Your task to perform on an android device: change keyboard looks Image 0: 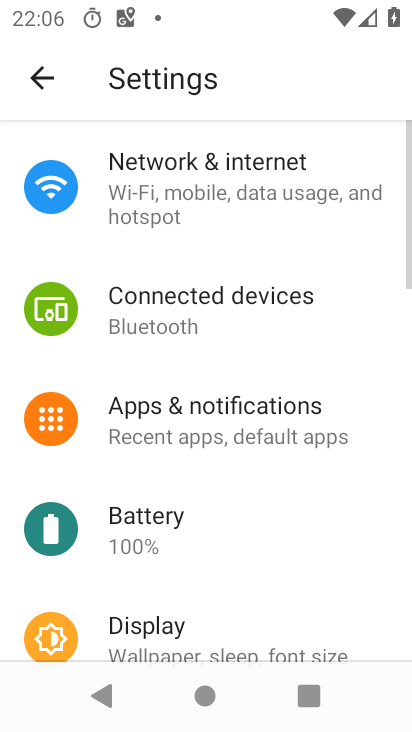
Step 0: drag from (367, 563) to (341, 310)
Your task to perform on an android device: change keyboard looks Image 1: 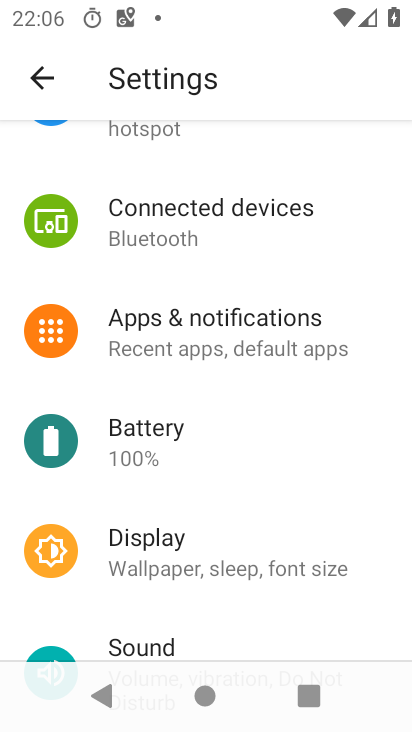
Step 1: drag from (345, 609) to (354, 262)
Your task to perform on an android device: change keyboard looks Image 2: 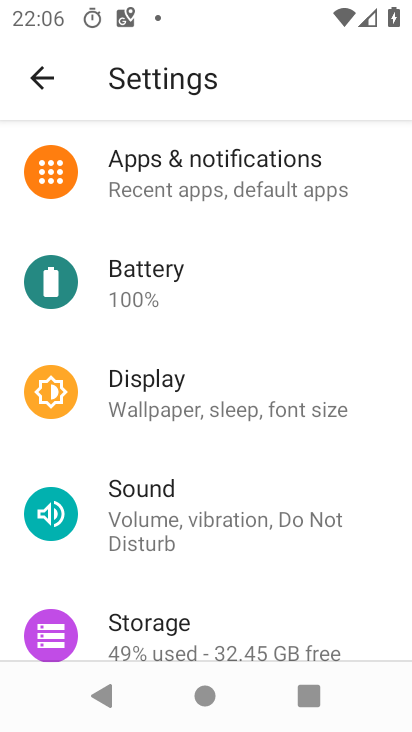
Step 2: drag from (286, 580) to (292, 261)
Your task to perform on an android device: change keyboard looks Image 3: 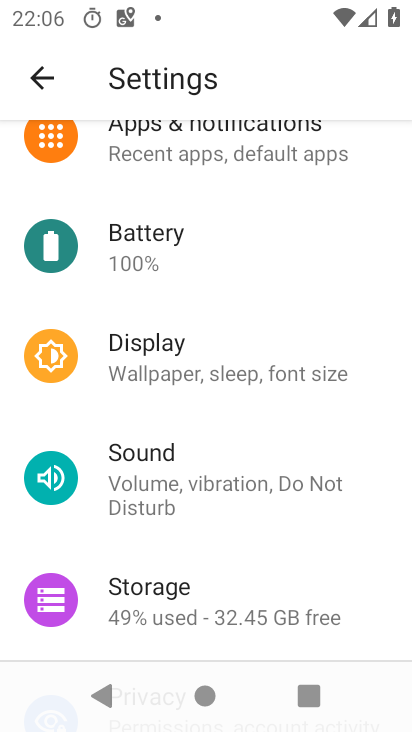
Step 3: drag from (295, 634) to (294, 266)
Your task to perform on an android device: change keyboard looks Image 4: 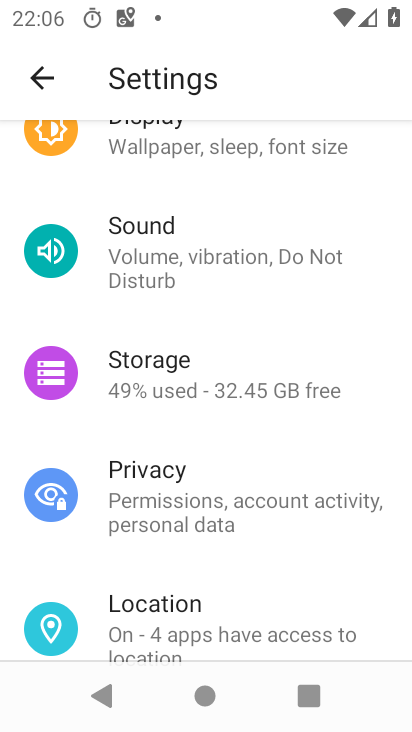
Step 4: drag from (329, 464) to (323, 316)
Your task to perform on an android device: change keyboard looks Image 5: 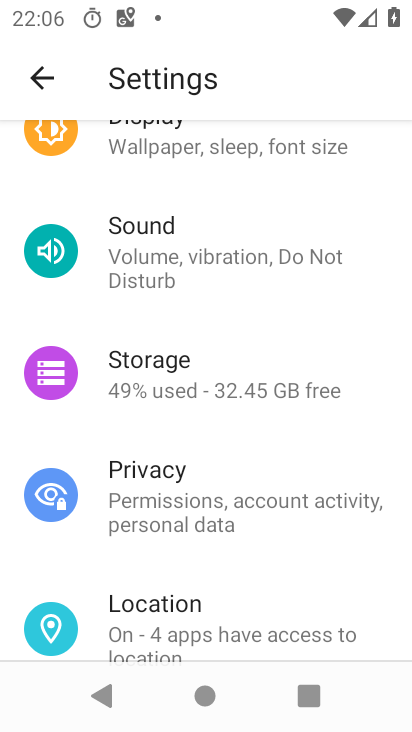
Step 5: drag from (306, 629) to (318, 464)
Your task to perform on an android device: change keyboard looks Image 6: 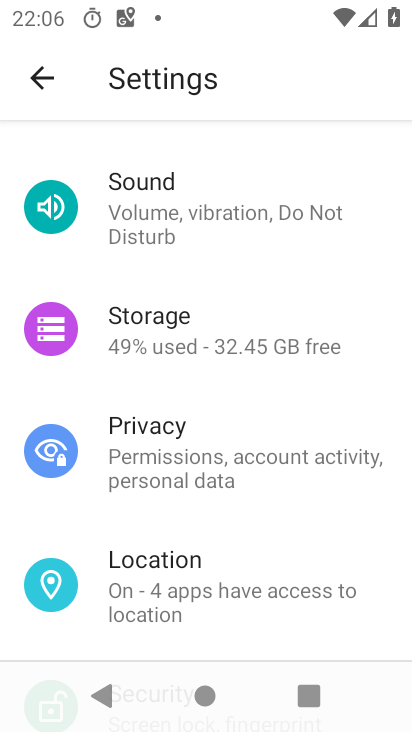
Step 6: click (341, 355)
Your task to perform on an android device: change keyboard looks Image 7: 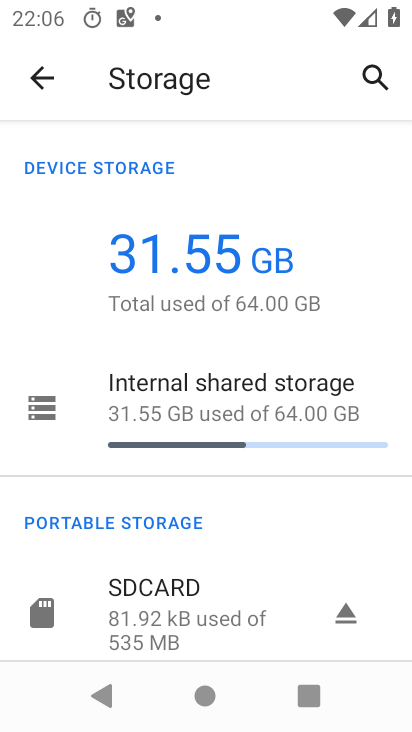
Step 7: click (39, 79)
Your task to perform on an android device: change keyboard looks Image 8: 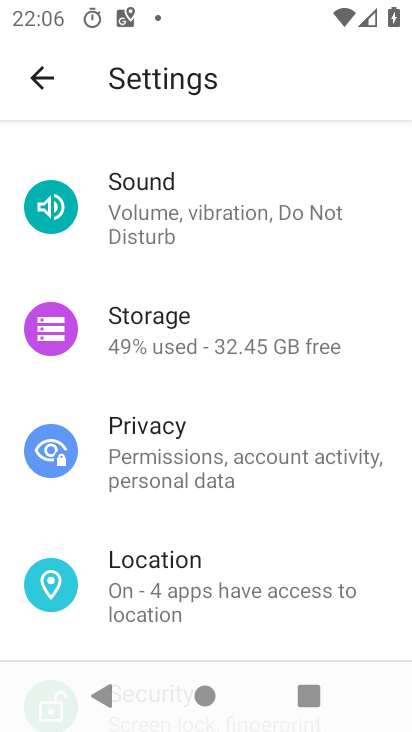
Step 8: drag from (253, 621) to (300, 337)
Your task to perform on an android device: change keyboard looks Image 9: 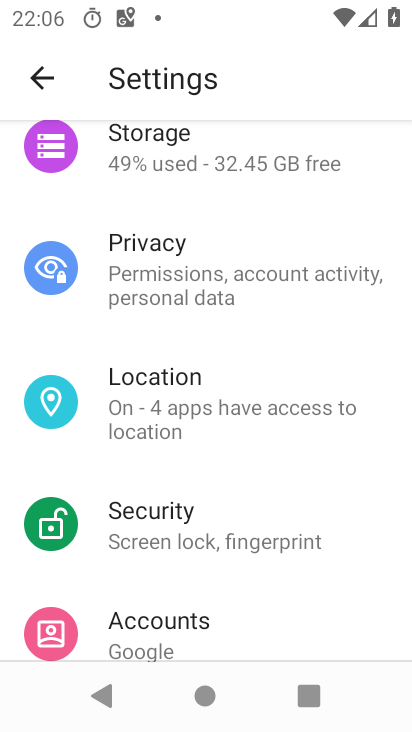
Step 9: drag from (251, 636) to (249, 303)
Your task to perform on an android device: change keyboard looks Image 10: 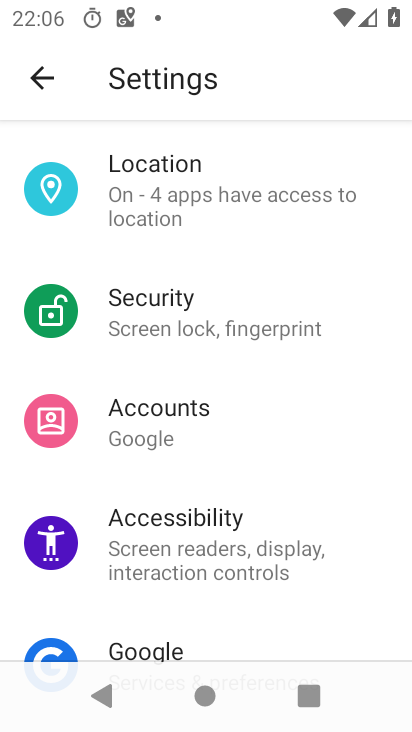
Step 10: drag from (272, 630) to (335, 286)
Your task to perform on an android device: change keyboard looks Image 11: 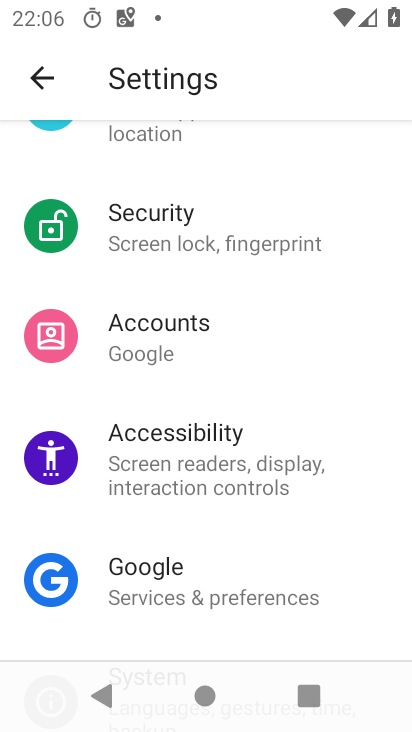
Step 11: drag from (308, 612) to (327, 329)
Your task to perform on an android device: change keyboard looks Image 12: 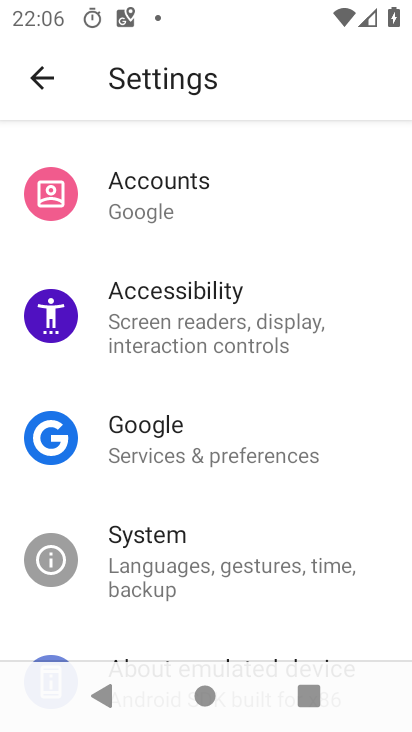
Step 12: drag from (358, 622) to (373, 227)
Your task to perform on an android device: change keyboard looks Image 13: 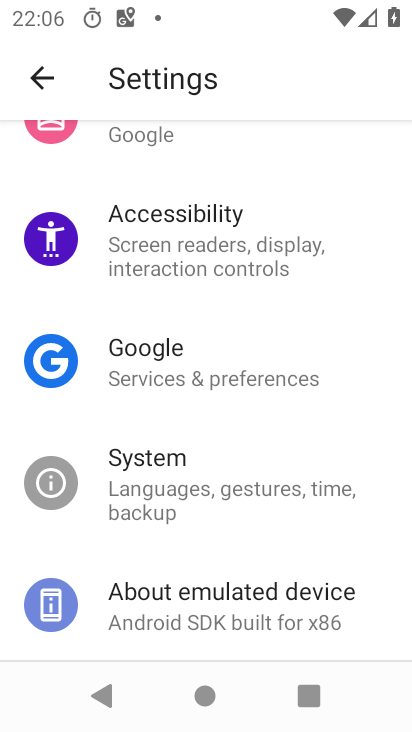
Step 13: click (149, 486)
Your task to perform on an android device: change keyboard looks Image 14: 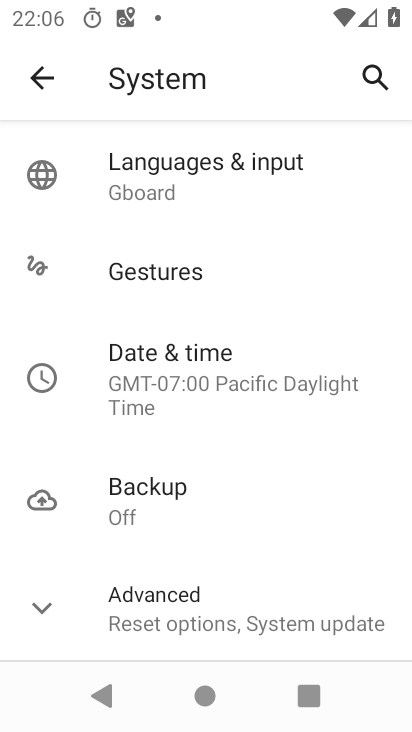
Step 14: click (148, 175)
Your task to perform on an android device: change keyboard looks Image 15: 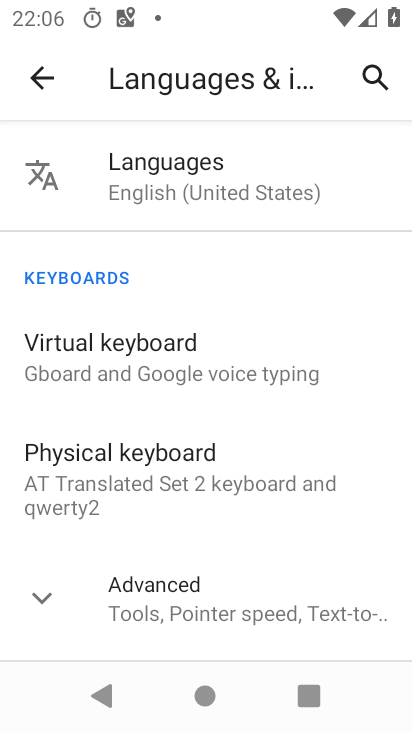
Step 15: click (83, 369)
Your task to perform on an android device: change keyboard looks Image 16: 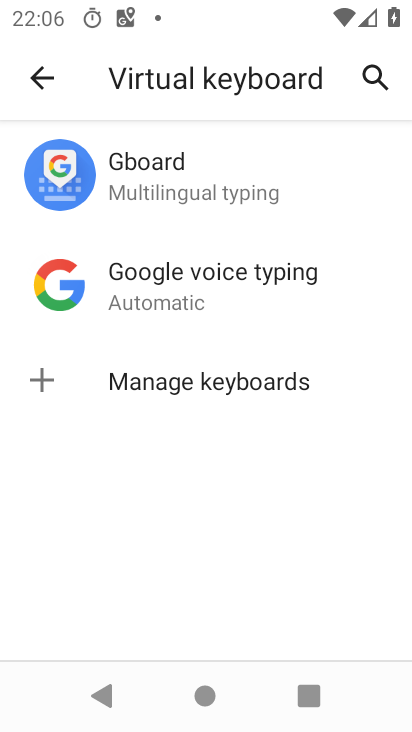
Step 16: click (117, 180)
Your task to perform on an android device: change keyboard looks Image 17: 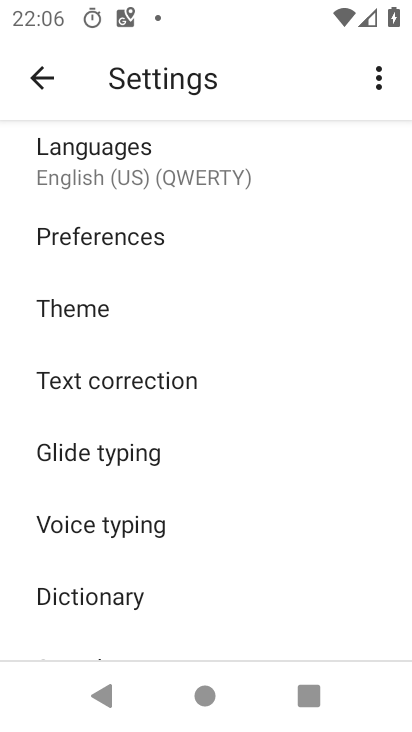
Step 17: click (73, 305)
Your task to perform on an android device: change keyboard looks Image 18: 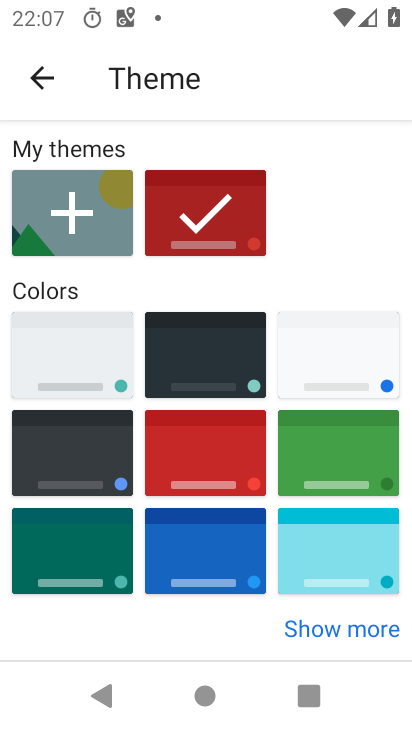
Step 18: click (352, 457)
Your task to perform on an android device: change keyboard looks Image 19: 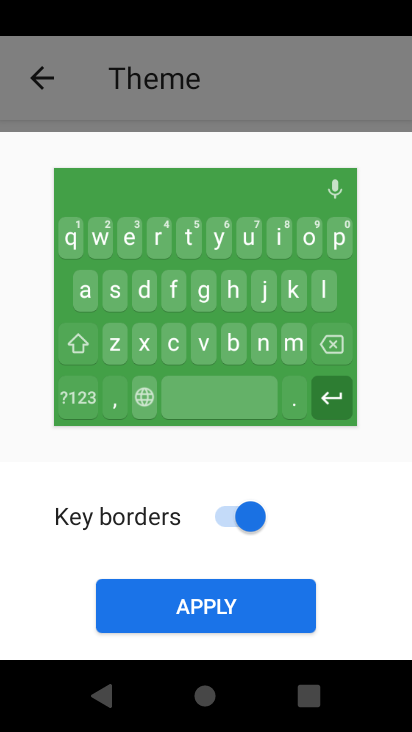
Step 19: click (194, 609)
Your task to perform on an android device: change keyboard looks Image 20: 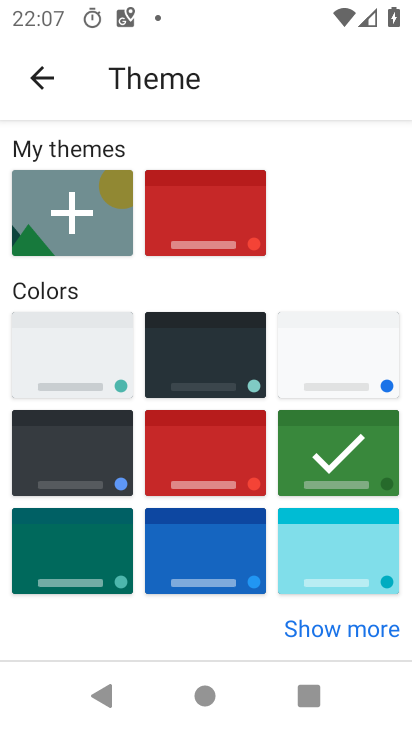
Step 20: task complete